Your task to perform on an android device: open app "Etsy: Buy & Sell Unique Items" (install if not already installed) and enter user name: "camp@inbox.com" and password: "unrelated" Image 0: 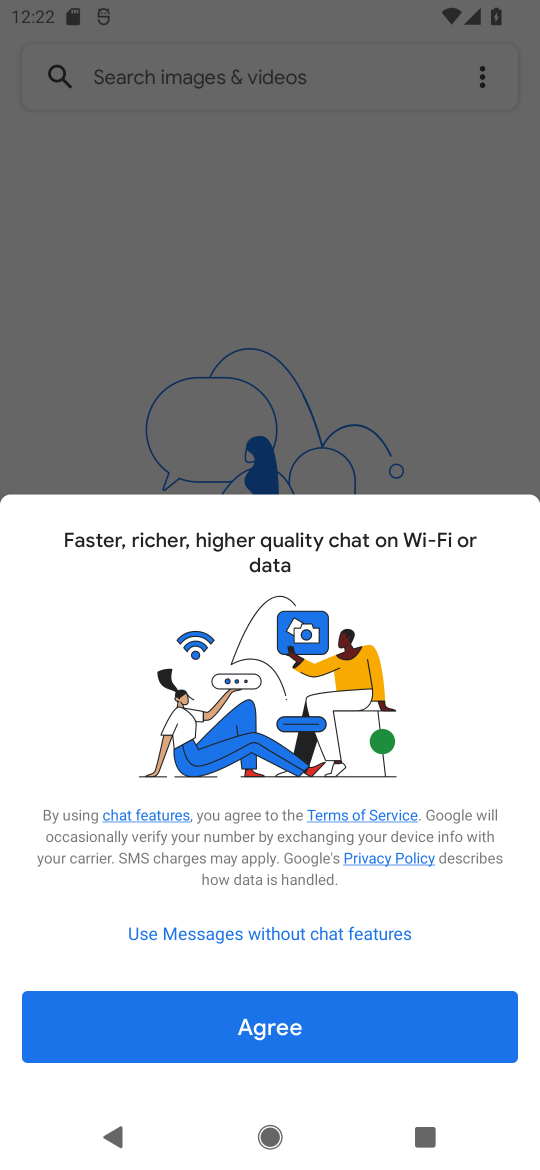
Step 0: press back button
Your task to perform on an android device: open app "Etsy: Buy & Sell Unique Items" (install if not already installed) and enter user name: "camp@inbox.com" and password: "unrelated" Image 1: 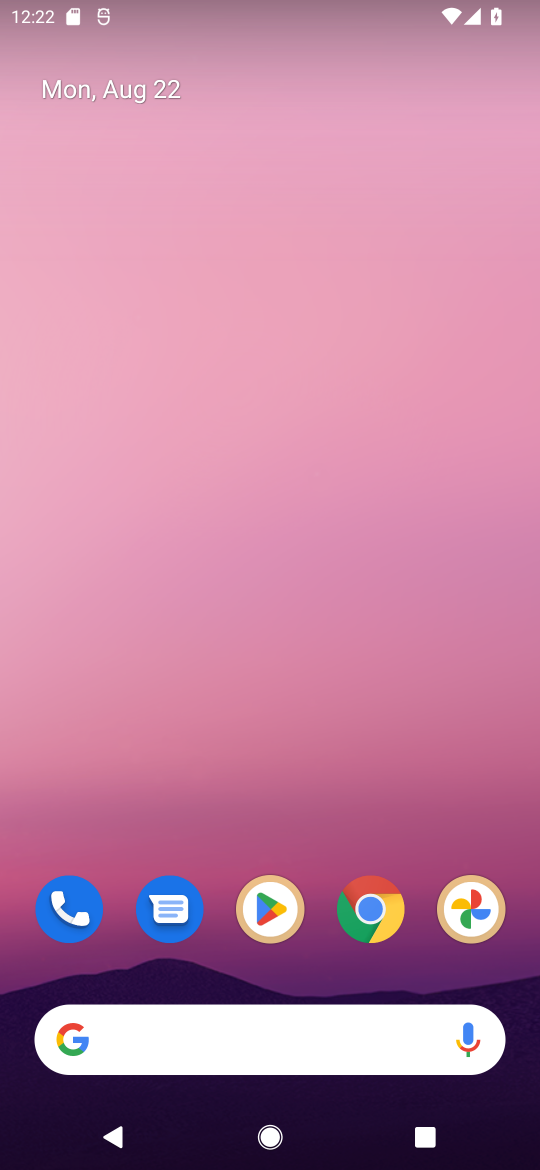
Step 1: click (270, 904)
Your task to perform on an android device: open app "Etsy: Buy & Sell Unique Items" (install if not already installed) and enter user name: "camp@inbox.com" and password: "unrelated" Image 2: 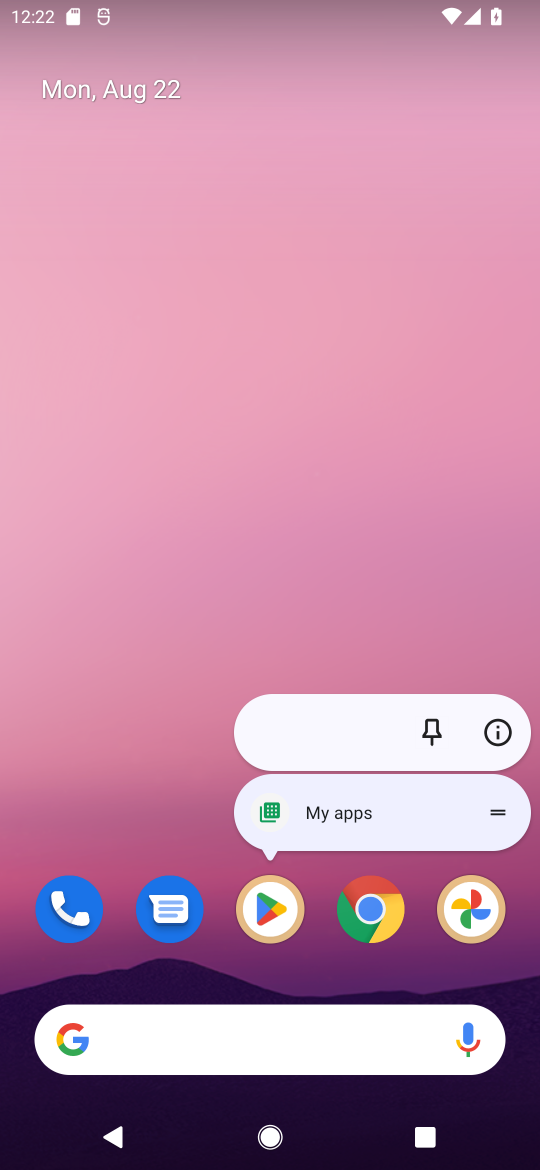
Step 2: click (274, 906)
Your task to perform on an android device: open app "Etsy: Buy & Sell Unique Items" (install if not already installed) and enter user name: "camp@inbox.com" and password: "unrelated" Image 3: 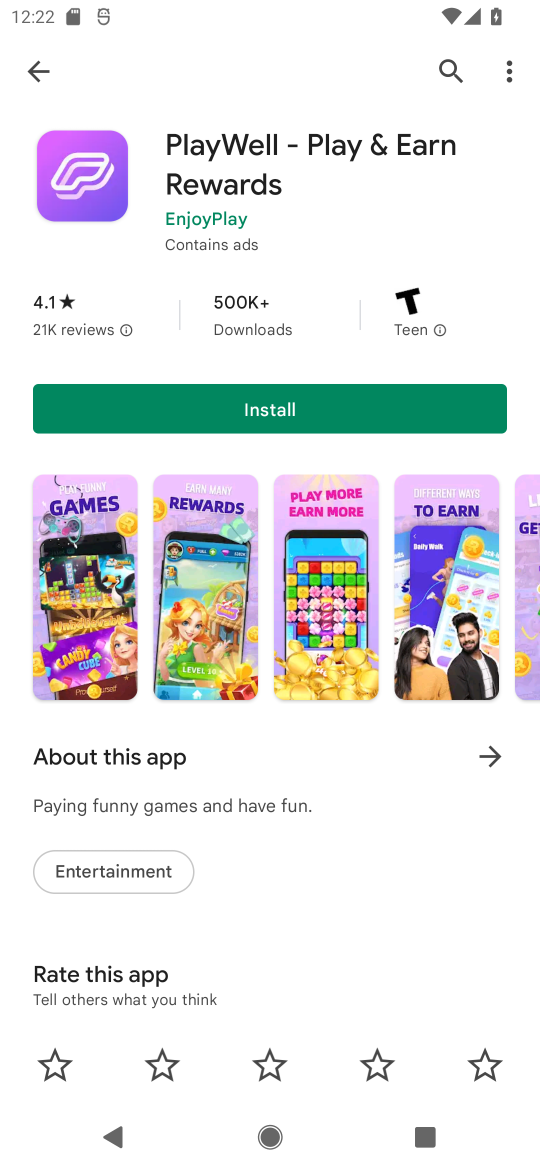
Step 3: click (461, 64)
Your task to perform on an android device: open app "Etsy: Buy & Sell Unique Items" (install if not already installed) and enter user name: "camp@inbox.com" and password: "unrelated" Image 4: 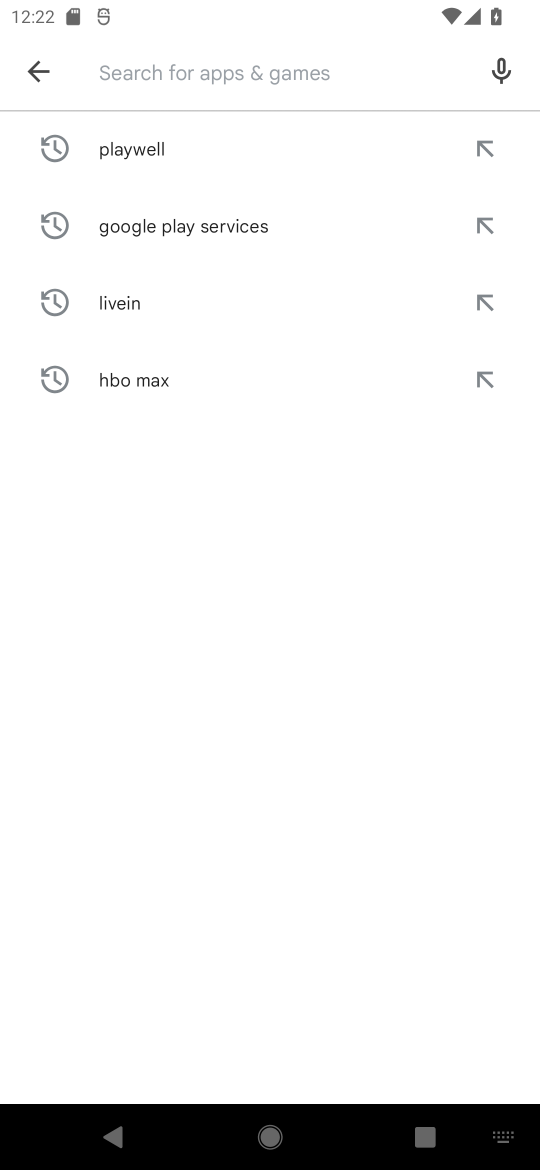
Step 4: click (183, 58)
Your task to perform on an android device: open app "Etsy: Buy & Sell Unique Items" (install if not already installed) and enter user name: "camp@inbox.com" and password: "unrelated" Image 5: 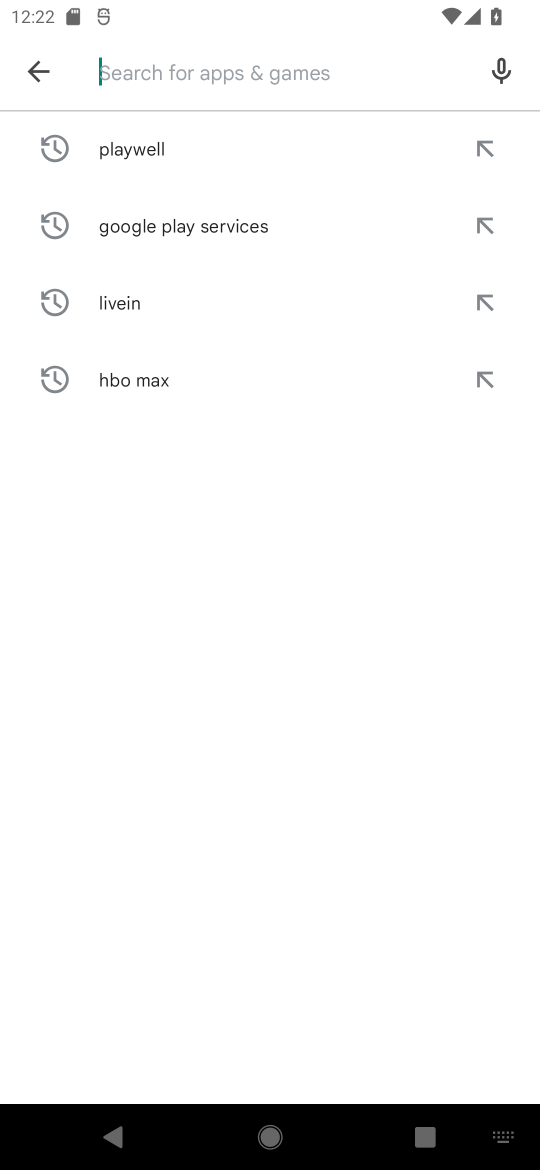
Step 5: type "etsy"
Your task to perform on an android device: open app "Etsy: Buy & Sell Unique Items" (install if not already installed) and enter user name: "camp@inbox.com" and password: "unrelated" Image 6: 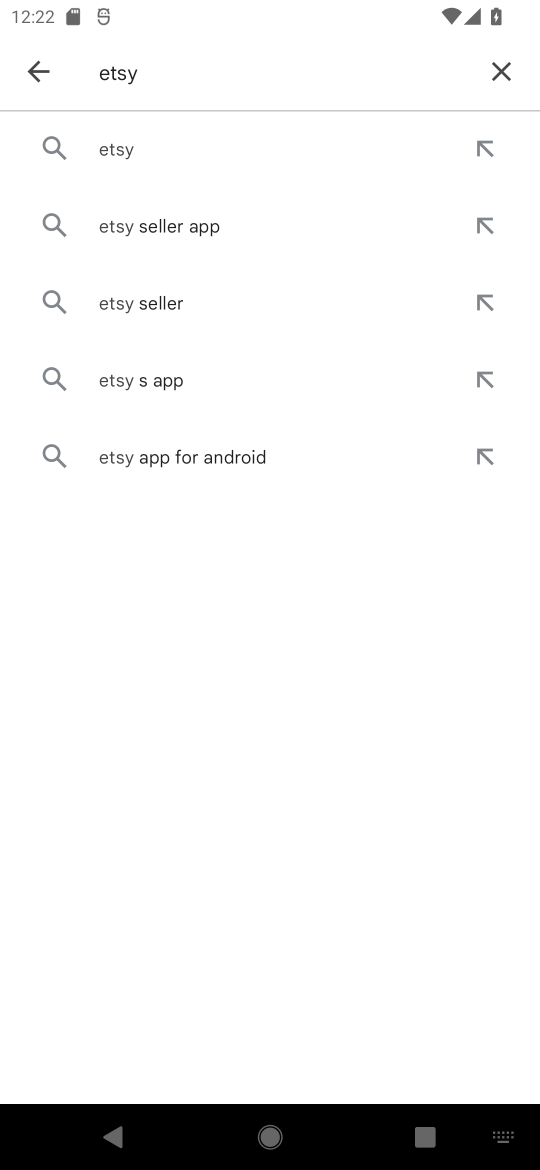
Step 6: click (205, 152)
Your task to perform on an android device: open app "Etsy: Buy & Sell Unique Items" (install if not already installed) and enter user name: "camp@inbox.com" and password: "unrelated" Image 7: 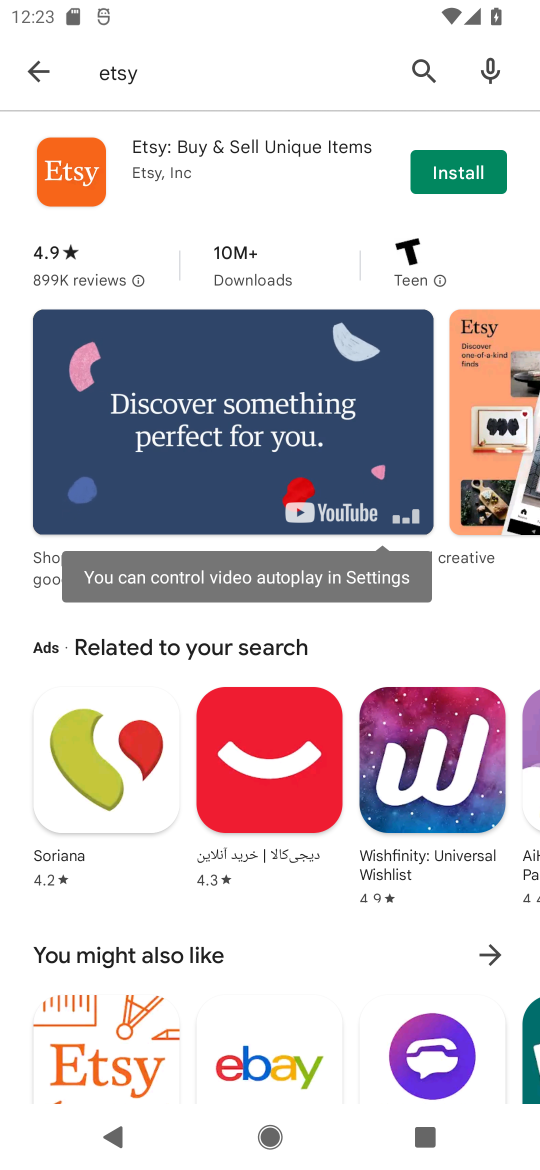
Step 7: click (479, 160)
Your task to perform on an android device: open app "Etsy: Buy & Sell Unique Items" (install if not already installed) and enter user name: "camp@inbox.com" and password: "unrelated" Image 8: 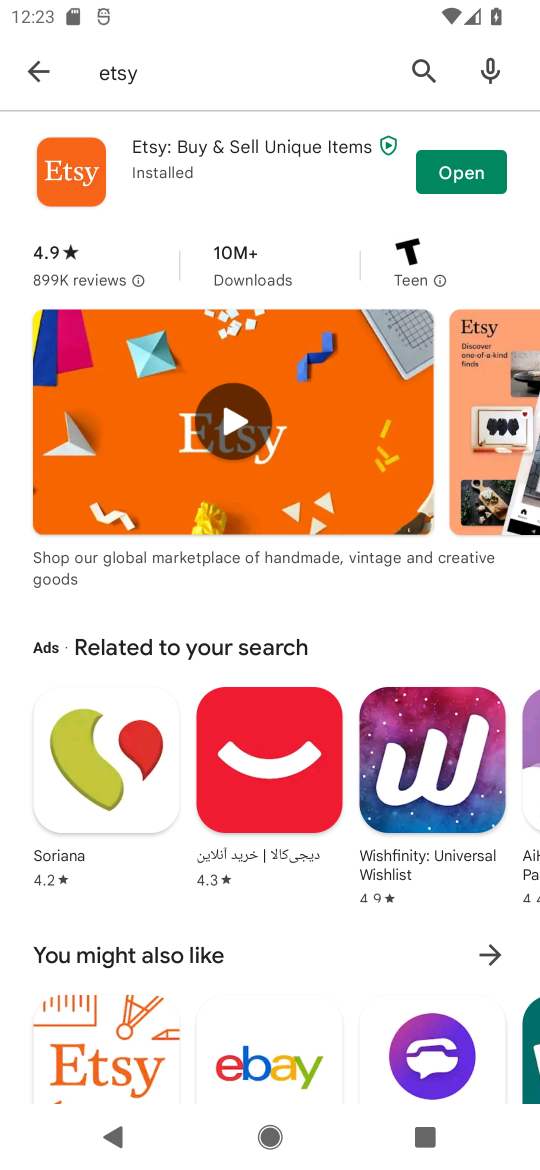
Step 8: click (455, 158)
Your task to perform on an android device: open app "Etsy: Buy & Sell Unique Items" (install if not already installed) and enter user name: "camp@inbox.com" and password: "unrelated" Image 9: 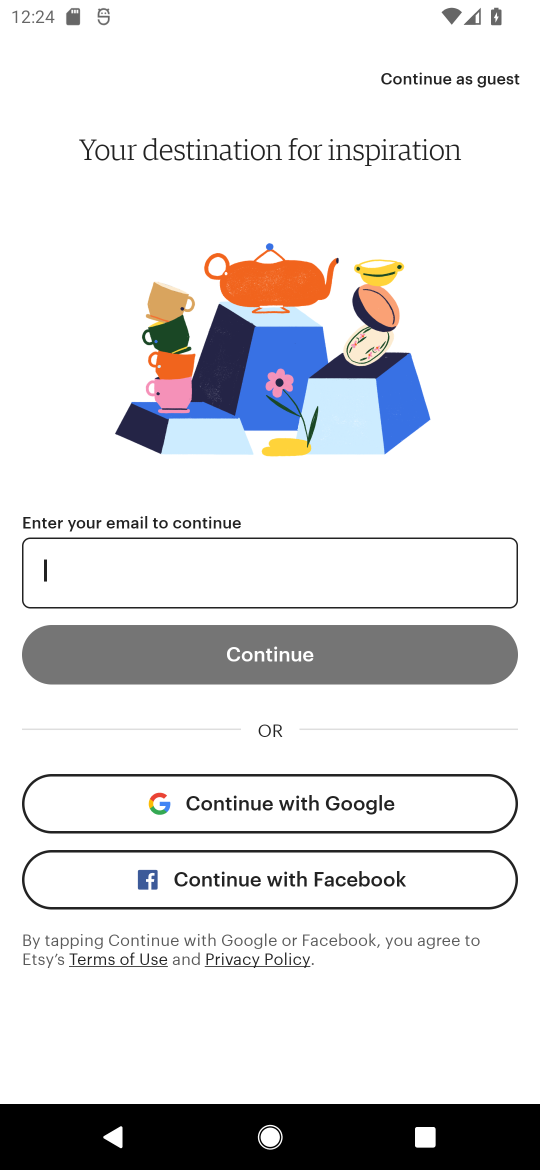
Step 9: click (131, 563)
Your task to perform on an android device: open app "Etsy: Buy & Sell Unique Items" (install if not already installed) and enter user name: "camp@inbox.com" and password: "unrelated" Image 10: 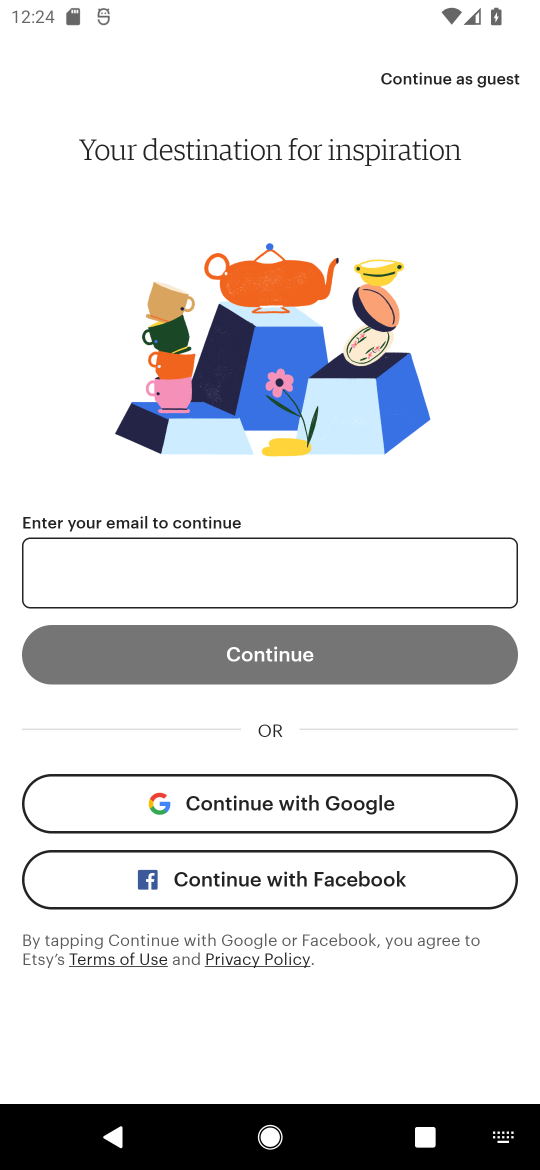
Step 10: click (119, 578)
Your task to perform on an android device: open app "Etsy: Buy & Sell Unique Items" (install if not already installed) and enter user name: "camp@inbox.com" and password: "unrelated" Image 11: 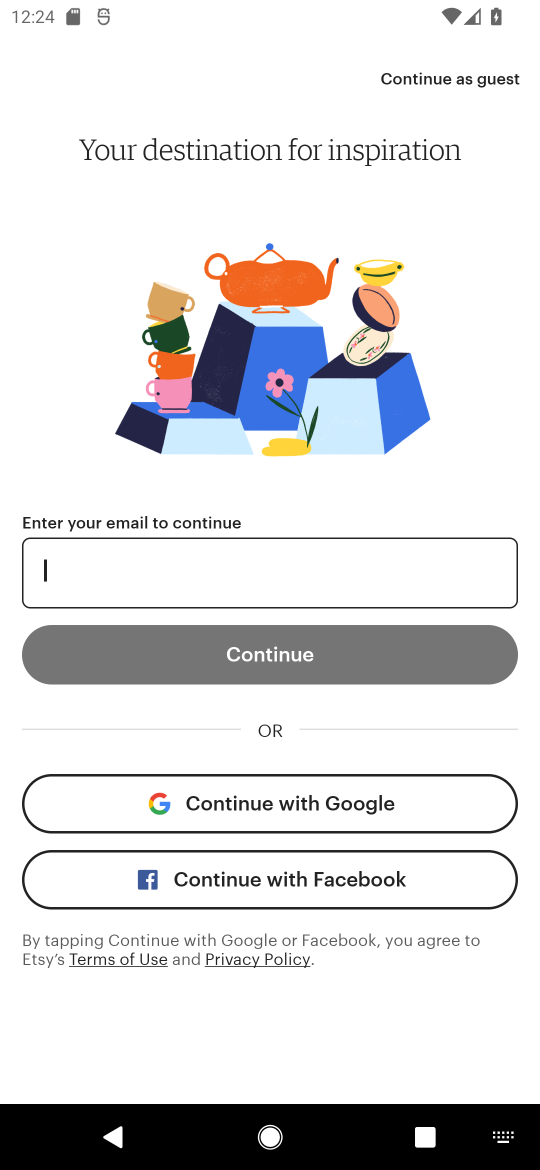
Step 11: type "camp@inbox.com"
Your task to perform on an android device: open app "Etsy: Buy & Sell Unique Items" (install if not already installed) and enter user name: "camp@inbox.com" and password: "unrelated" Image 12: 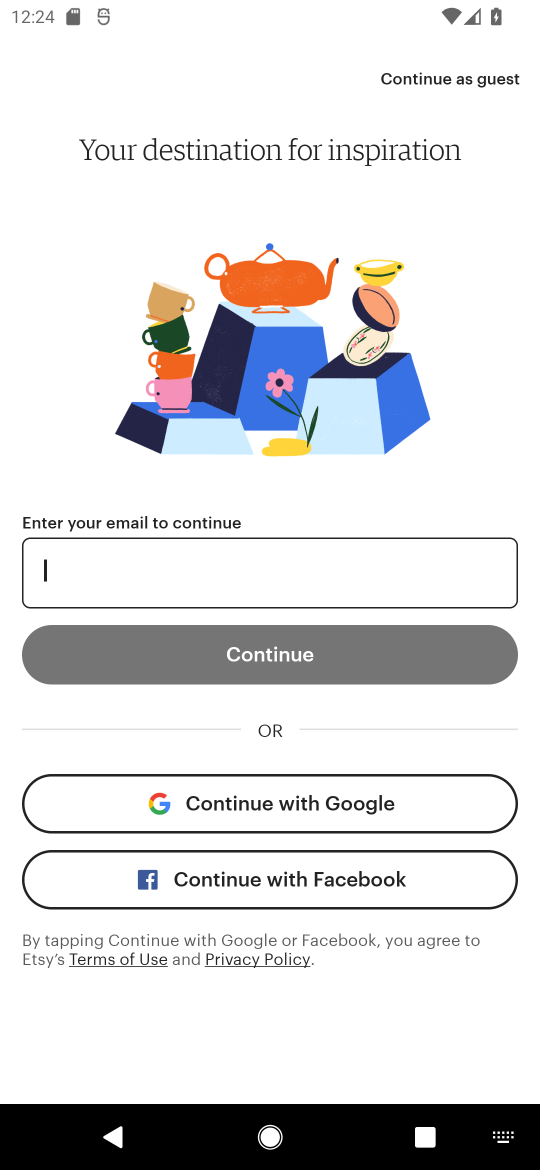
Step 12: click (311, 641)
Your task to perform on an android device: open app "Etsy: Buy & Sell Unique Items" (install if not already installed) and enter user name: "camp@inbox.com" and password: "unrelated" Image 13: 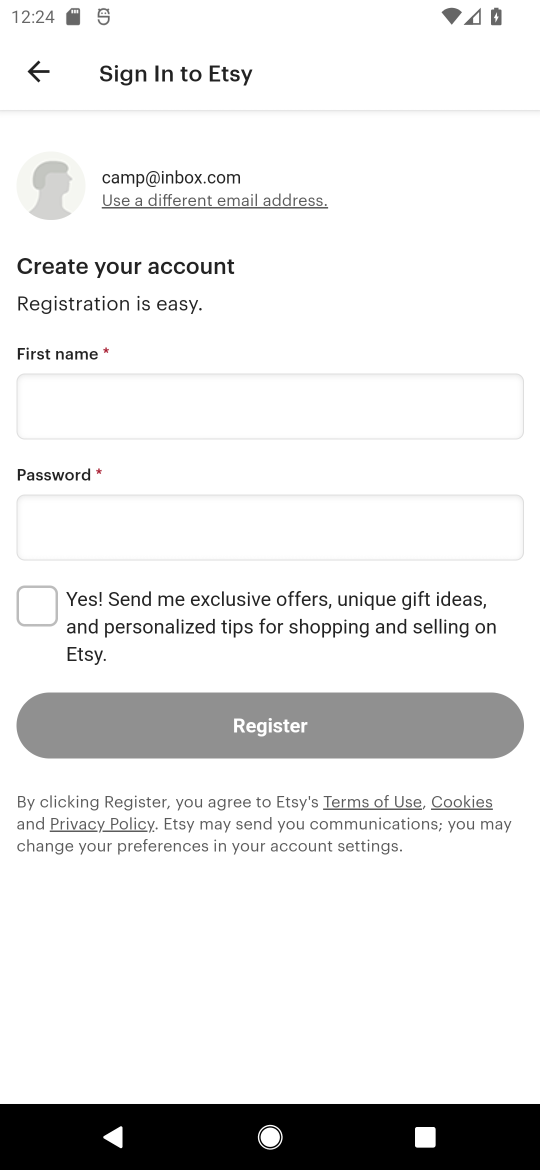
Step 13: click (40, 523)
Your task to perform on an android device: open app "Etsy: Buy & Sell Unique Items" (install if not already installed) and enter user name: "camp@inbox.com" and password: "unrelated" Image 14: 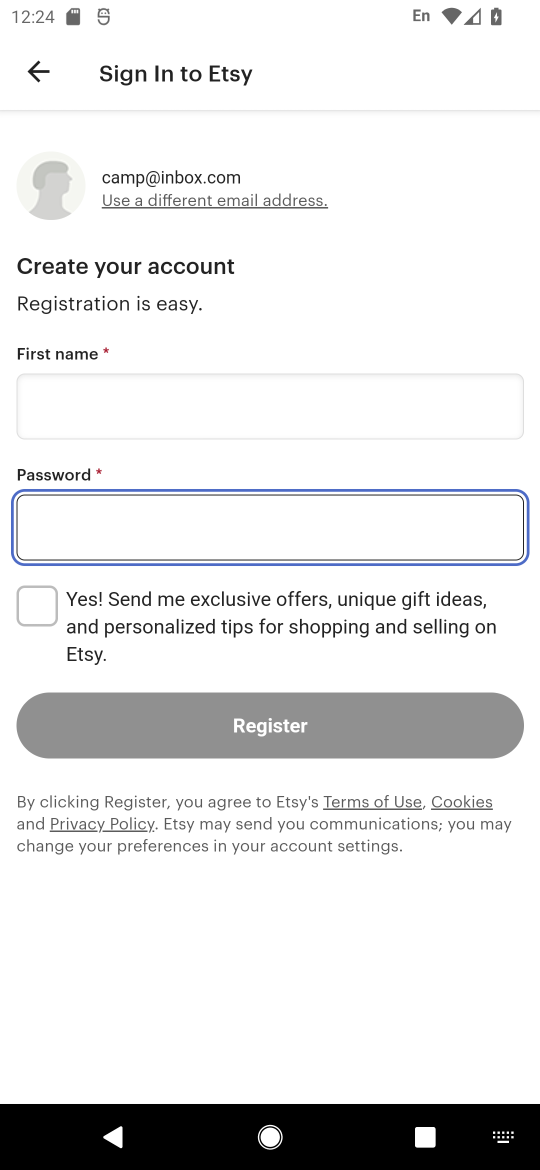
Step 14: click (103, 540)
Your task to perform on an android device: open app "Etsy: Buy & Sell Unique Items" (install if not already installed) and enter user name: "camp@inbox.com" and password: "unrelated" Image 15: 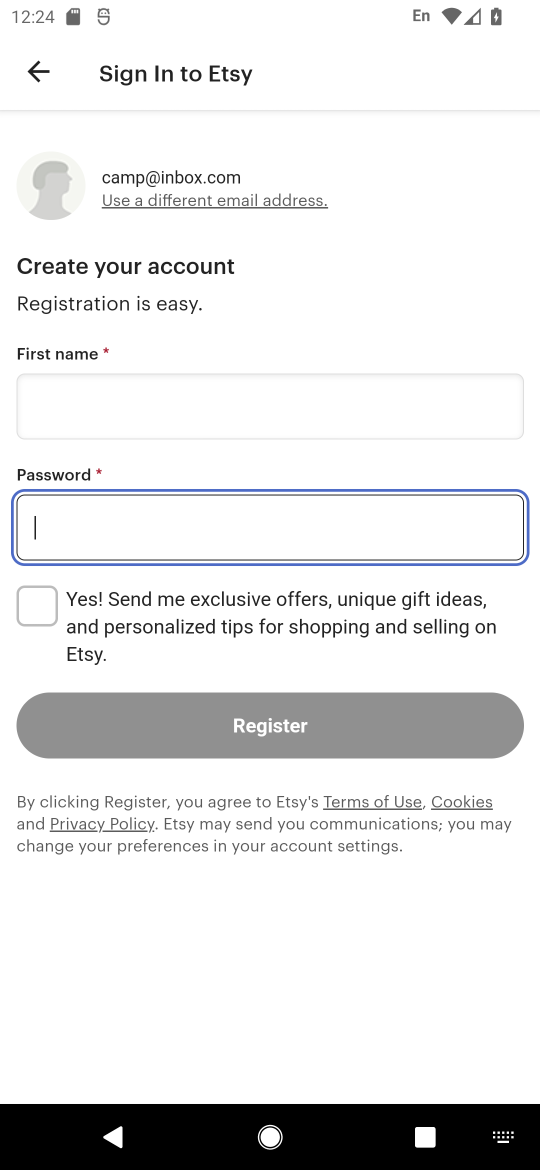
Step 15: type "unrelated"
Your task to perform on an android device: open app "Etsy: Buy & Sell Unique Items" (install if not already installed) and enter user name: "camp@inbox.com" and password: "unrelated" Image 16: 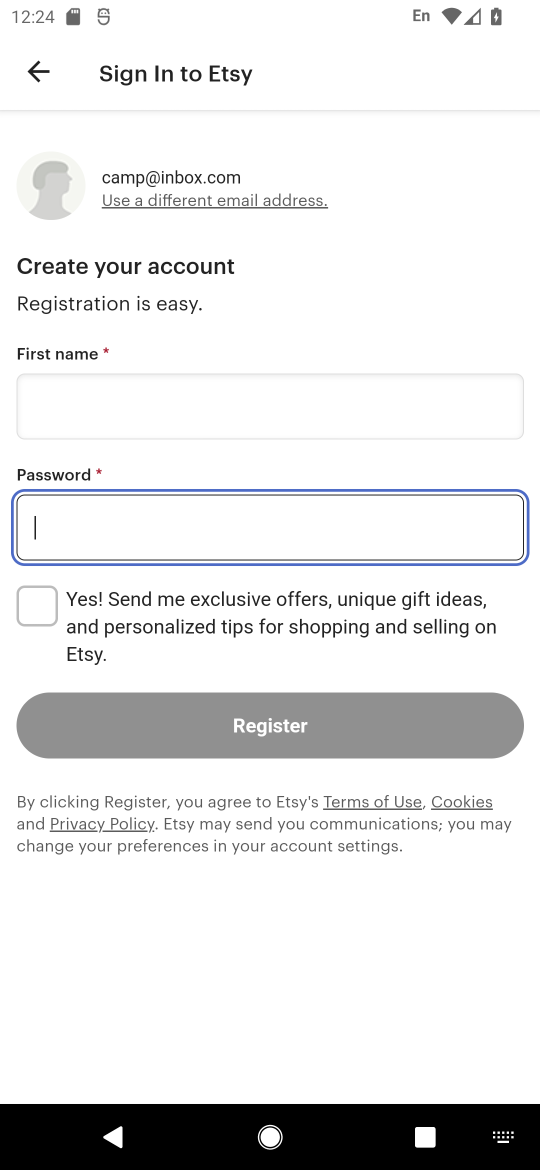
Step 16: click (325, 1076)
Your task to perform on an android device: open app "Etsy: Buy & Sell Unique Items" (install if not already installed) and enter user name: "camp@inbox.com" and password: "unrelated" Image 17: 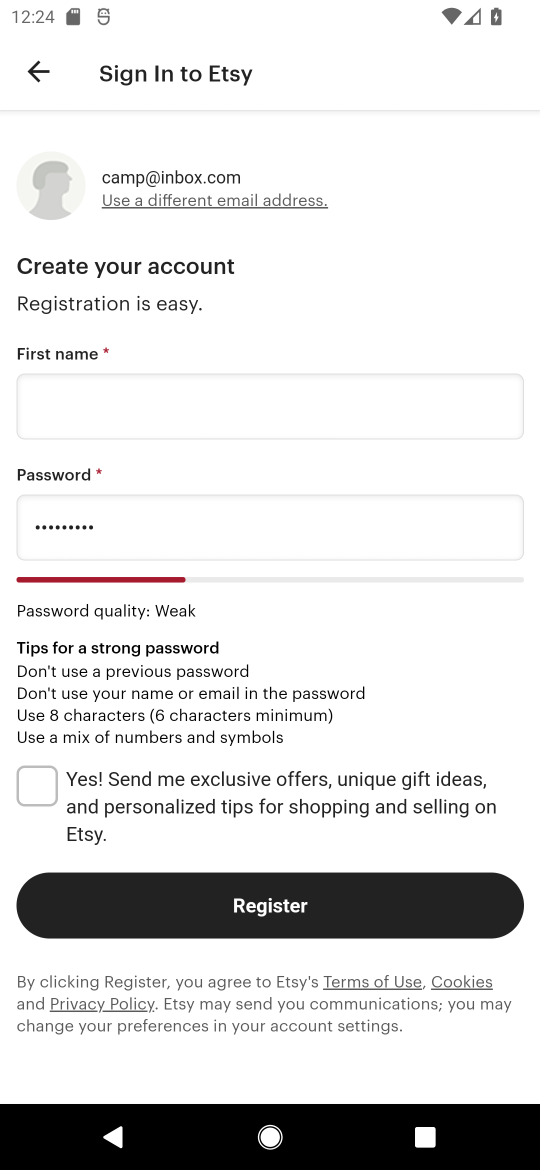
Step 17: task complete